Your task to perform on an android device: change timer sound Image 0: 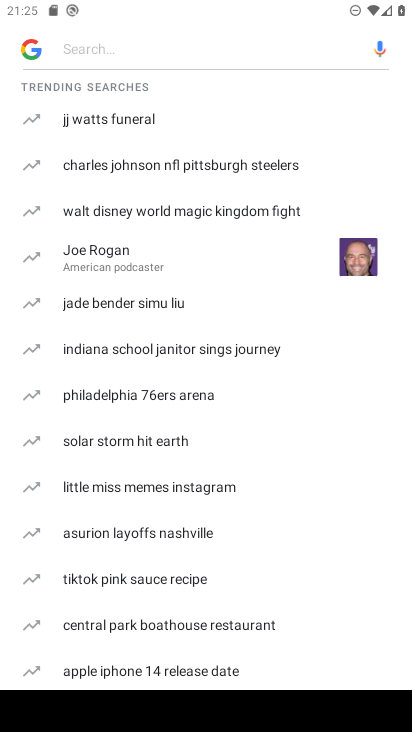
Step 0: press home button
Your task to perform on an android device: change timer sound Image 1: 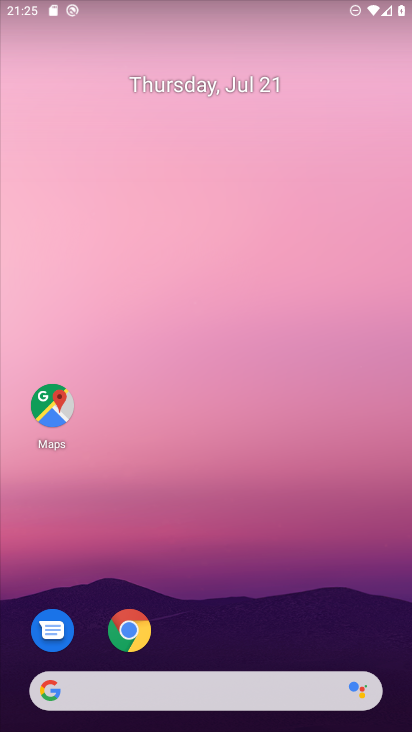
Step 1: drag from (336, 617) to (253, 64)
Your task to perform on an android device: change timer sound Image 2: 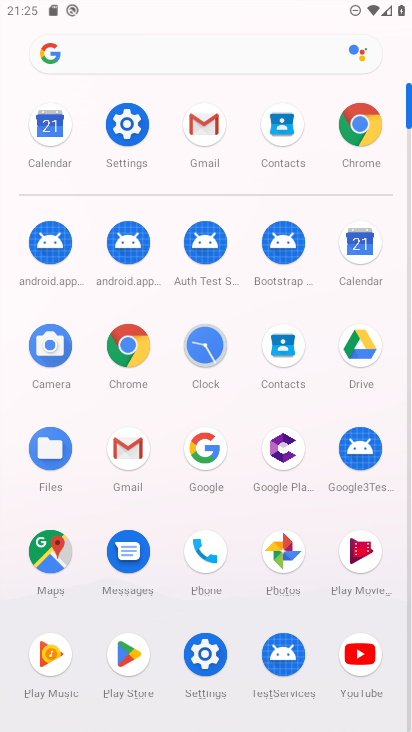
Step 2: click (126, 130)
Your task to perform on an android device: change timer sound Image 3: 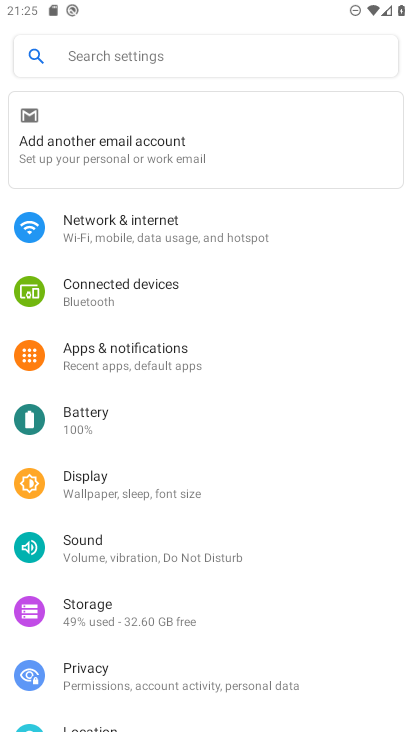
Step 3: press home button
Your task to perform on an android device: change timer sound Image 4: 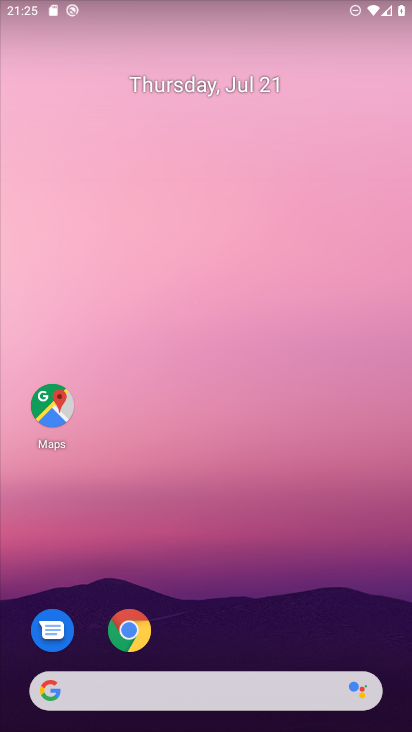
Step 4: drag from (264, 596) to (259, 70)
Your task to perform on an android device: change timer sound Image 5: 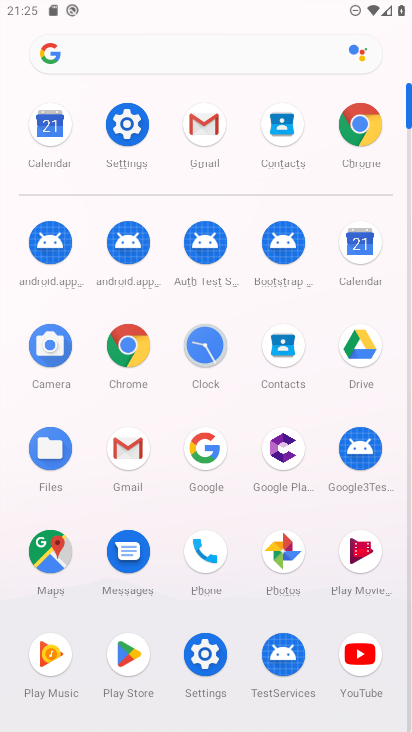
Step 5: click (199, 353)
Your task to perform on an android device: change timer sound Image 6: 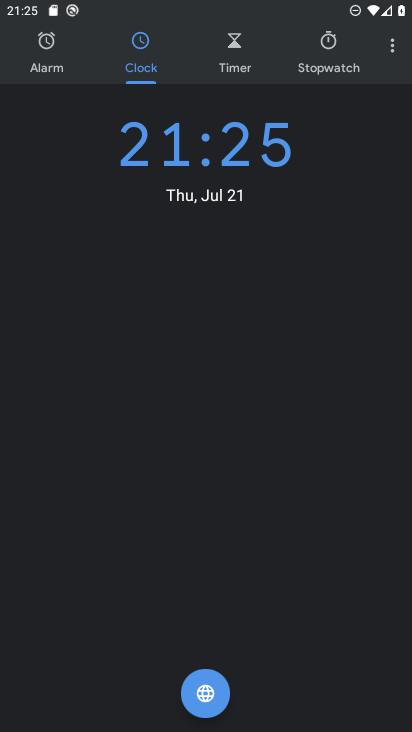
Step 6: click (387, 36)
Your task to perform on an android device: change timer sound Image 7: 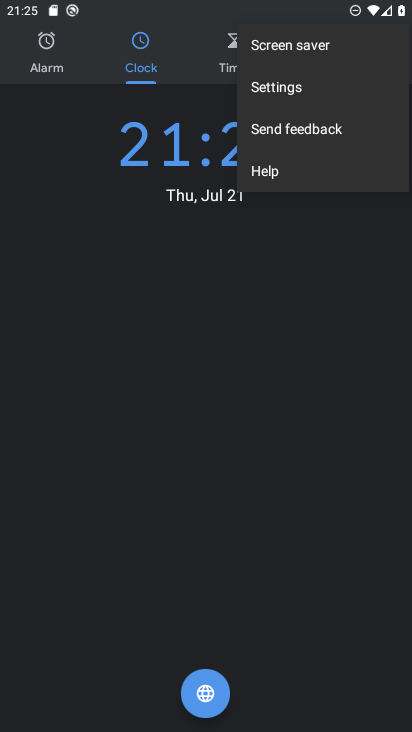
Step 7: click (306, 94)
Your task to perform on an android device: change timer sound Image 8: 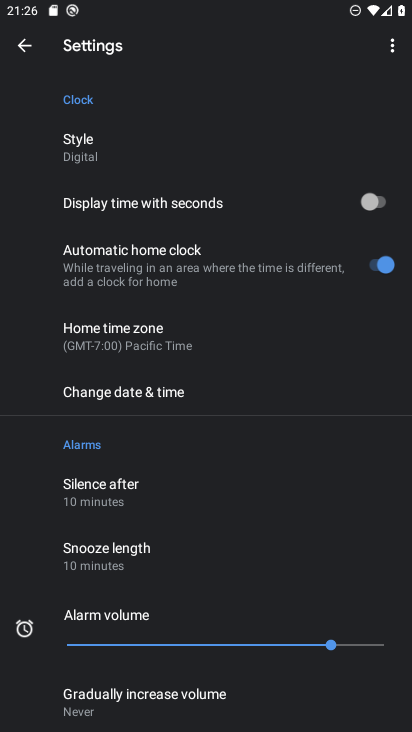
Step 8: drag from (191, 620) to (265, 224)
Your task to perform on an android device: change timer sound Image 9: 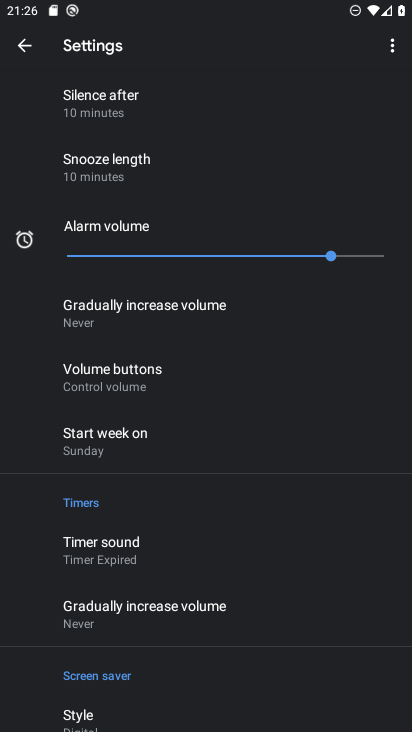
Step 9: click (86, 559)
Your task to perform on an android device: change timer sound Image 10: 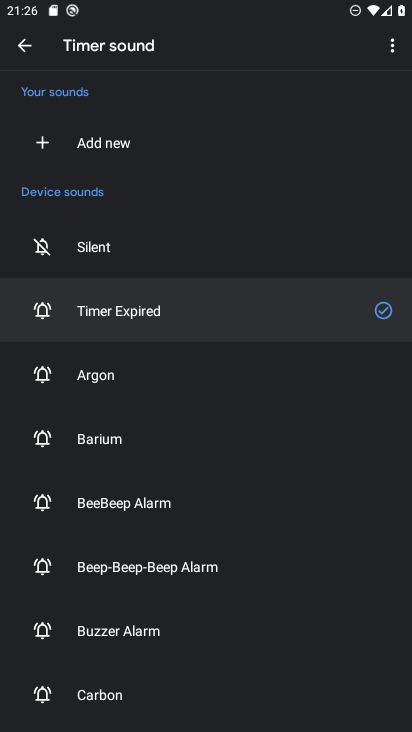
Step 10: click (163, 386)
Your task to perform on an android device: change timer sound Image 11: 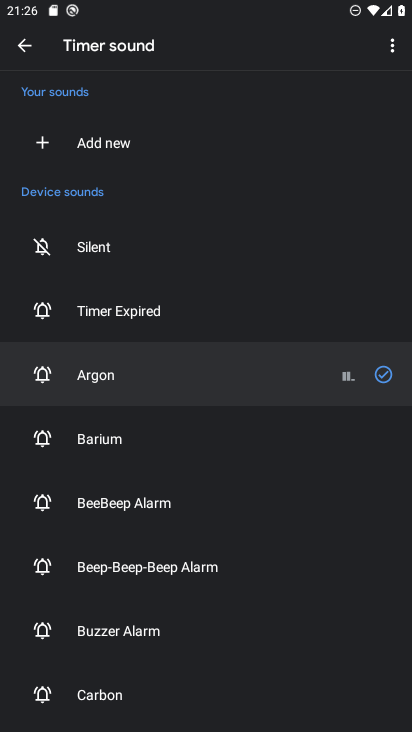
Step 11: task complete